Your task to perform on an android device: Add asus zenbook to the cart on target Image 0: 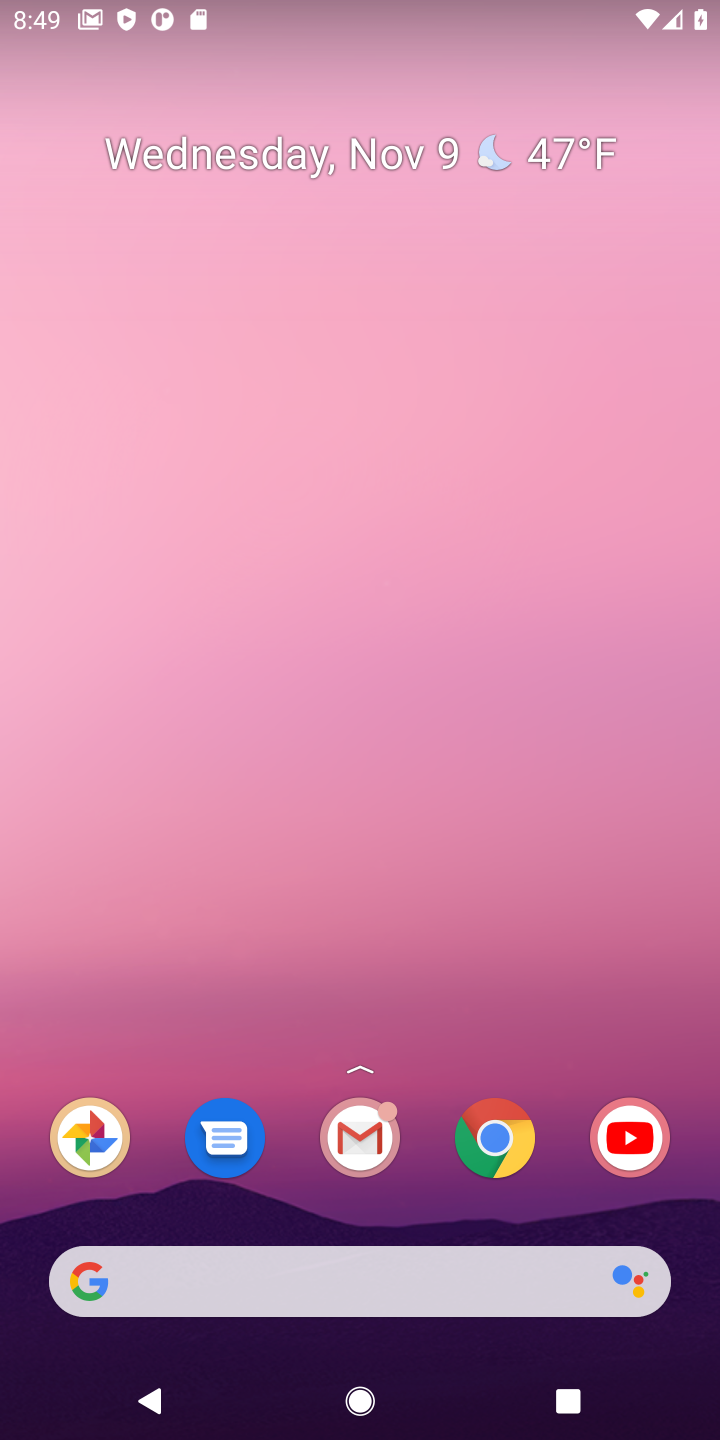
Step 0: drag from (466, 902) to (397, 132)
Your task to perform on an android device: Add asus zenbook to the cart on target Image 1: 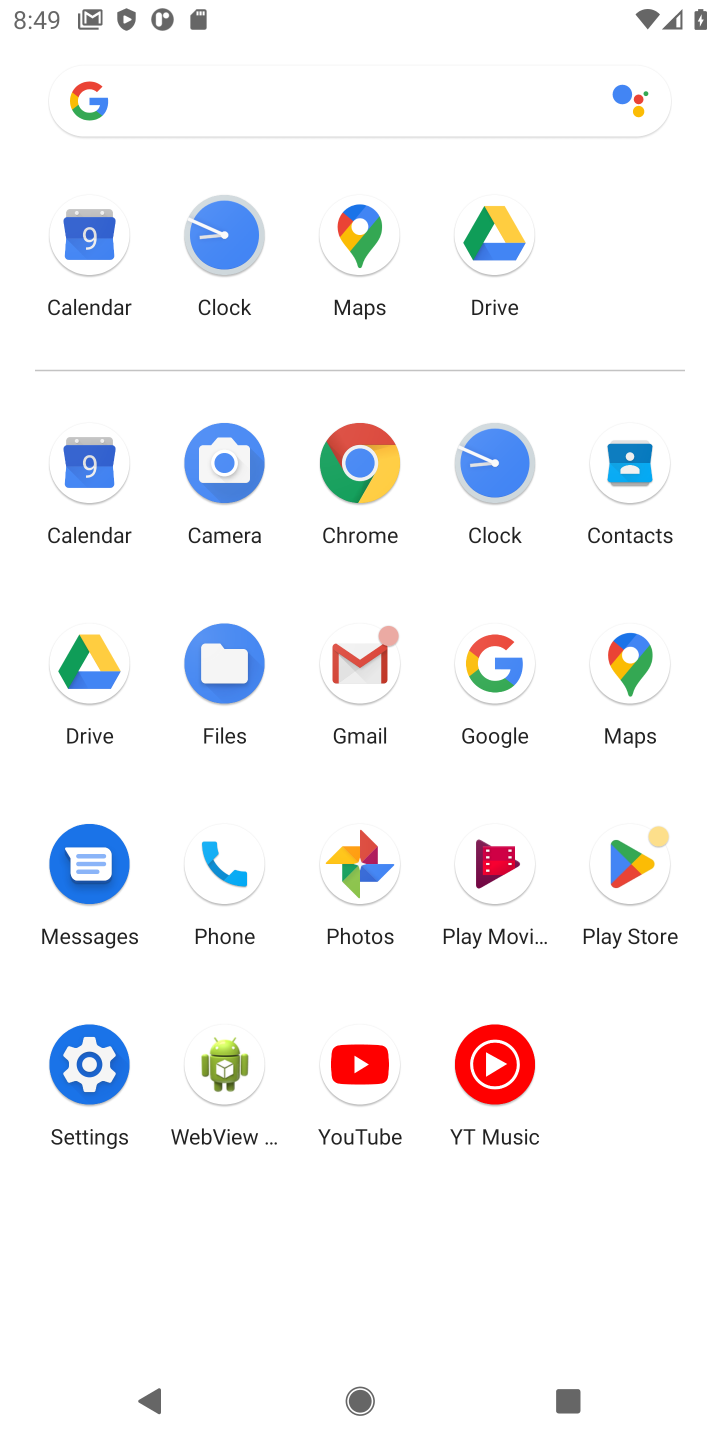
Step 1: click (362, 452)
Your task to perform on an android device: Add asus zenbook to the cart on target Image 2: 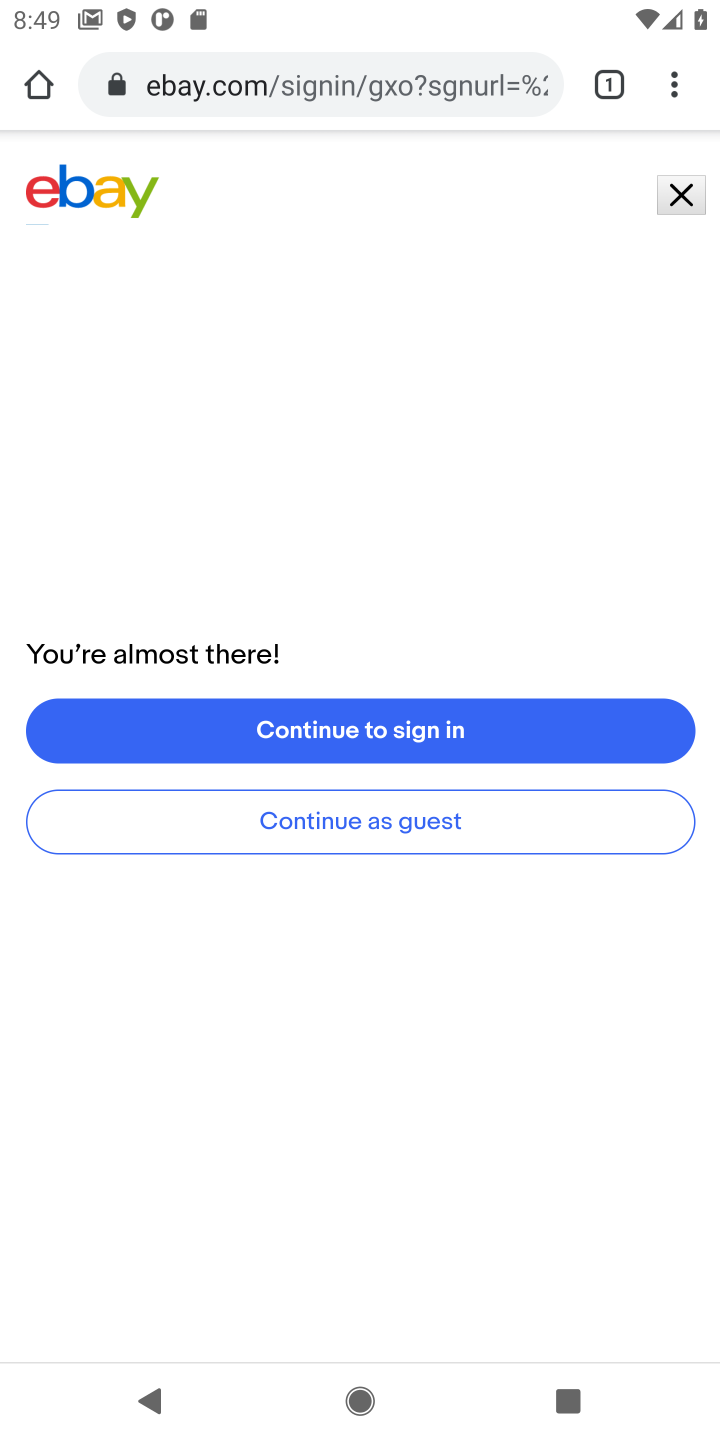
Step 2: click (362, 89)
Your task to perform on an android device: Add asus zenbook to the cart on target Image 3: 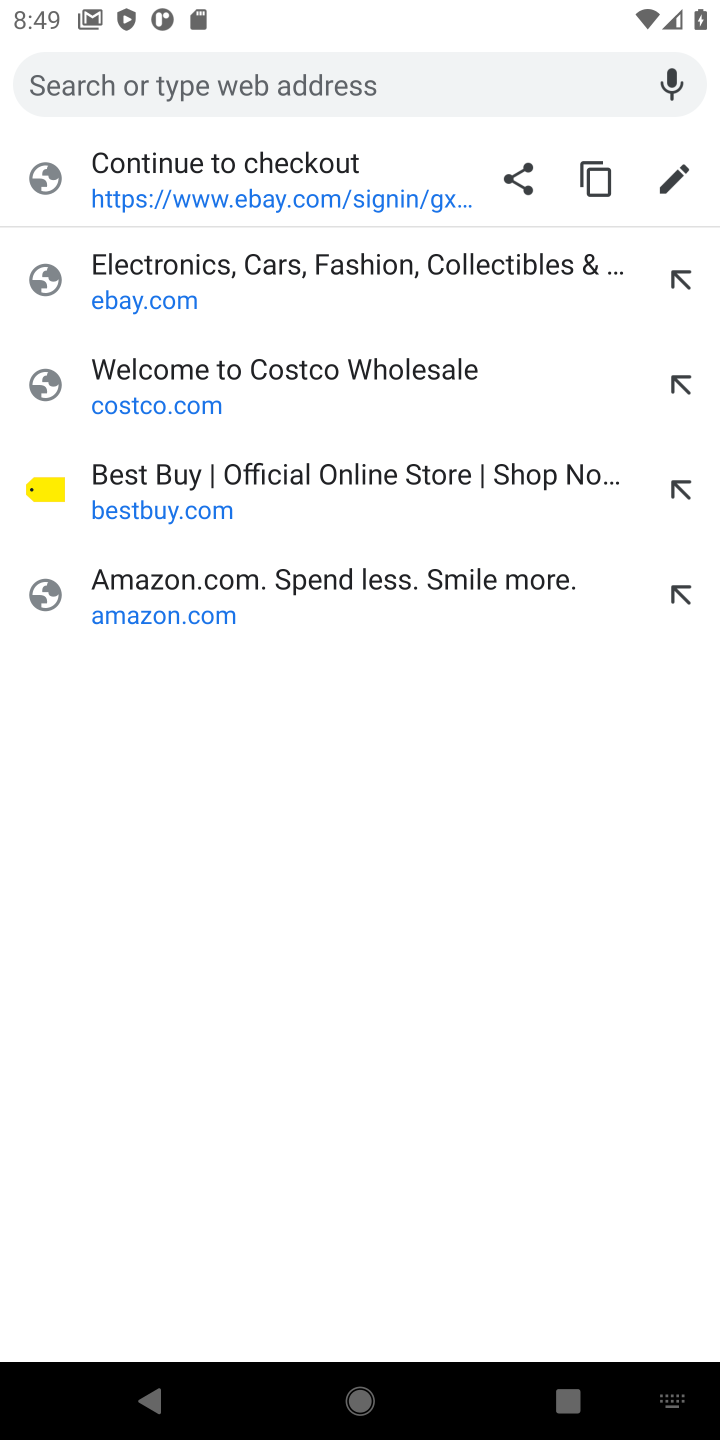
Step 3: type "target.com"
Your task to perform on an android device: Add asus zenbook to the cart on target Image 4: 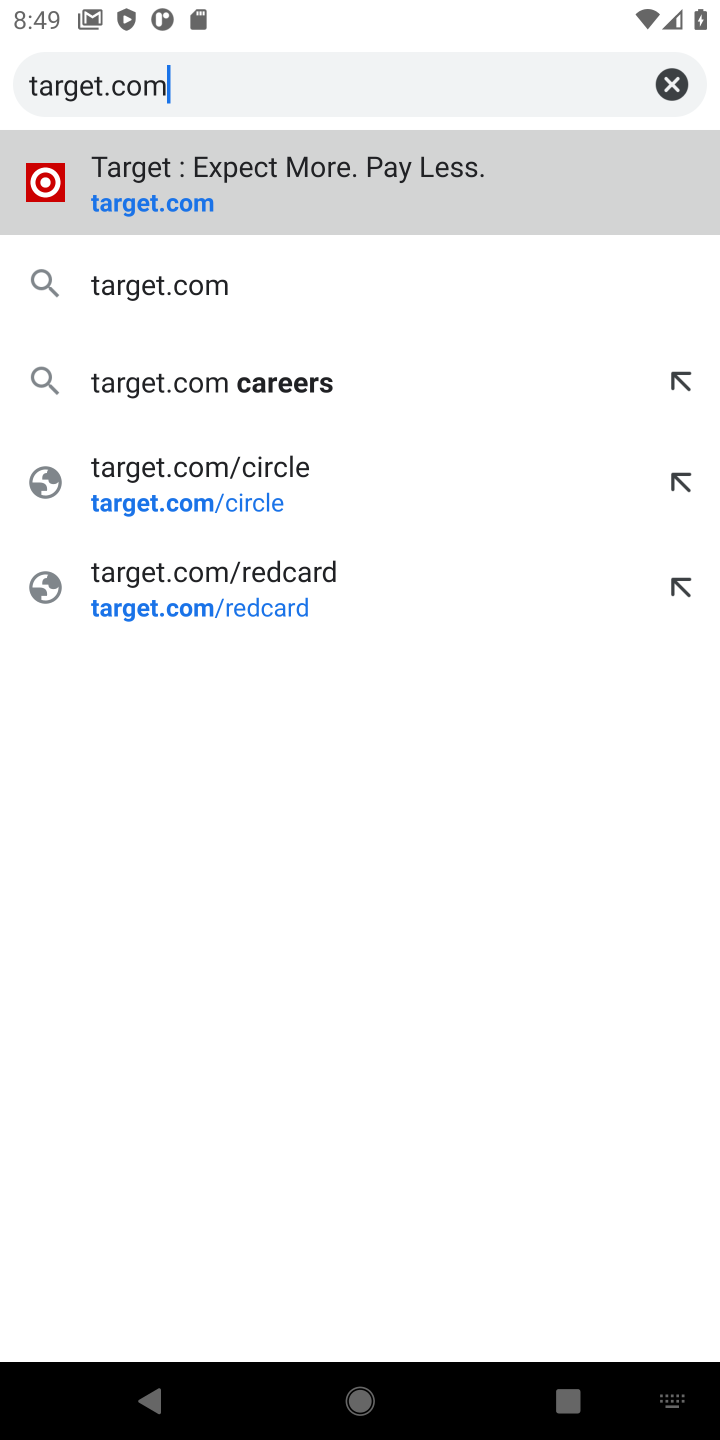
Step 4: press enter
Your task to perform on an android device: Add asus zenbook to the cart on target Image 5: 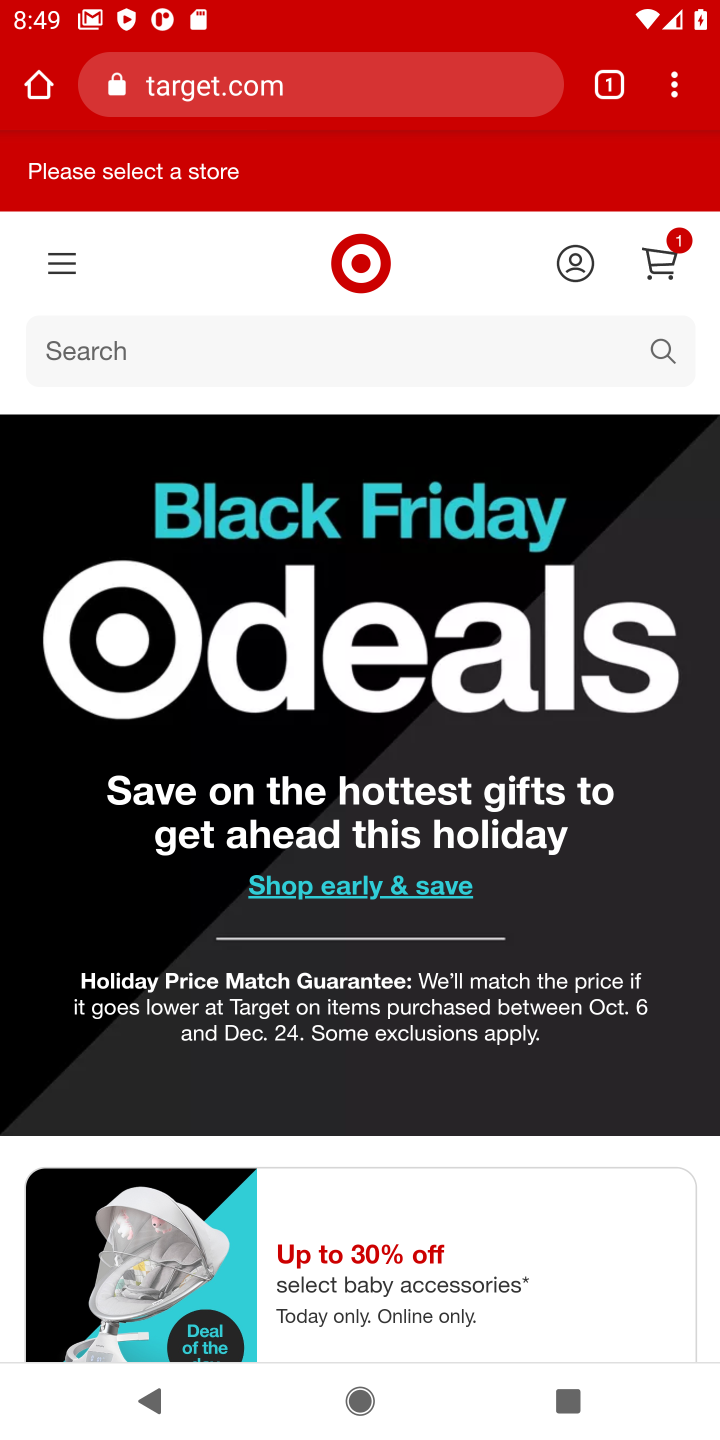
Step 5: click (156, 336)
Your task to perform on an android device: Add asus zenbook to the cart on target Image 6: 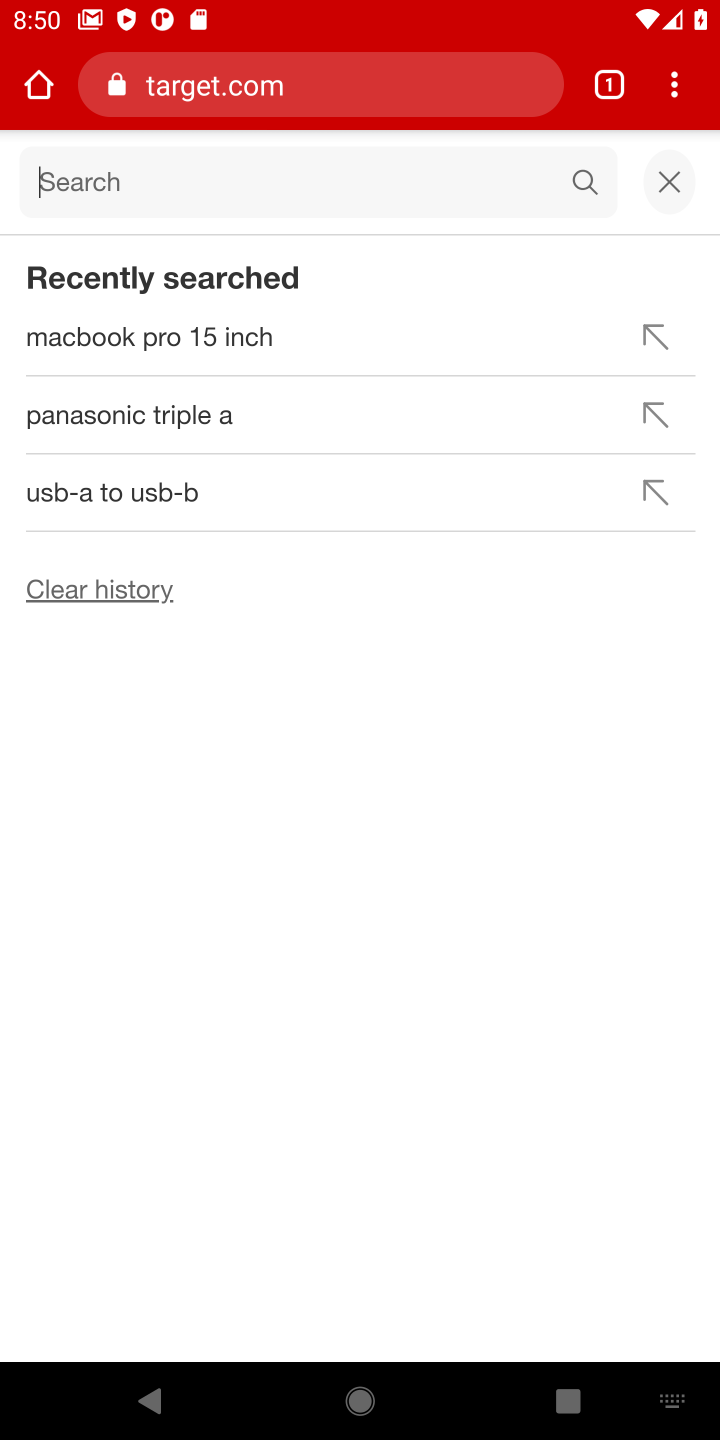
Step 6: type "asus zenbook"
Your task to perform on an android device: Add asus zenbook to the cart on target Image 7: 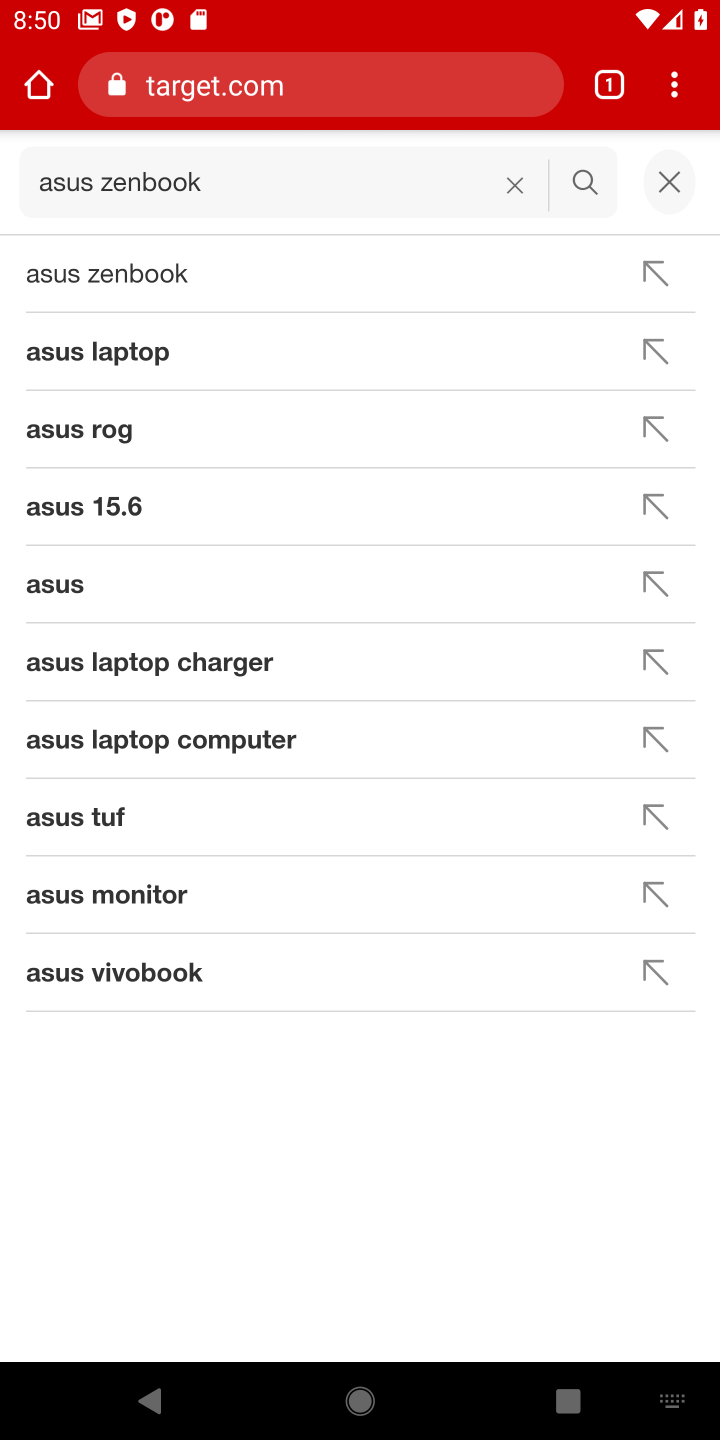
Step 7: press enter
Your task to perform on an android device: Add asus zenbook to the cart on target Image 8: 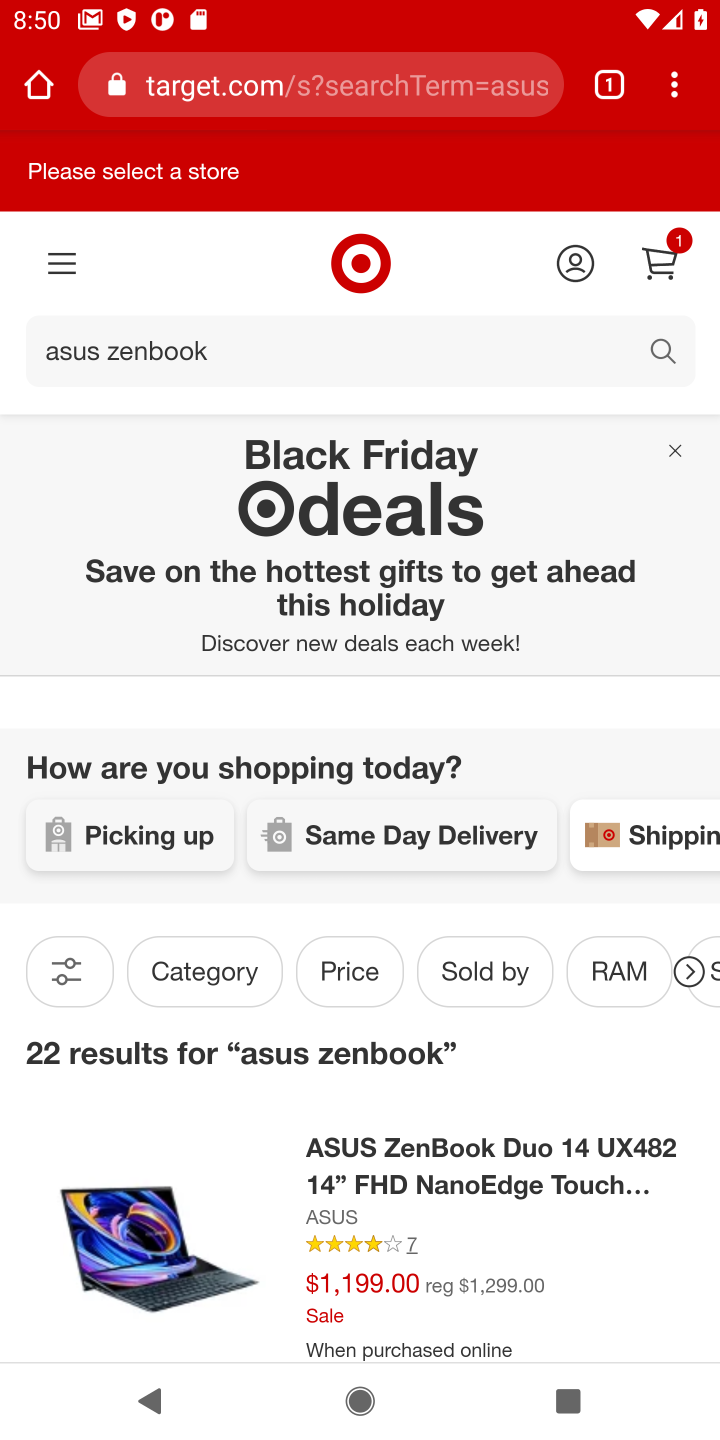
Step 8: drag from (504, 1215) to (434, 276)
Your task to perform on an android device: Add asus zenbook to the cart on target Image 9: 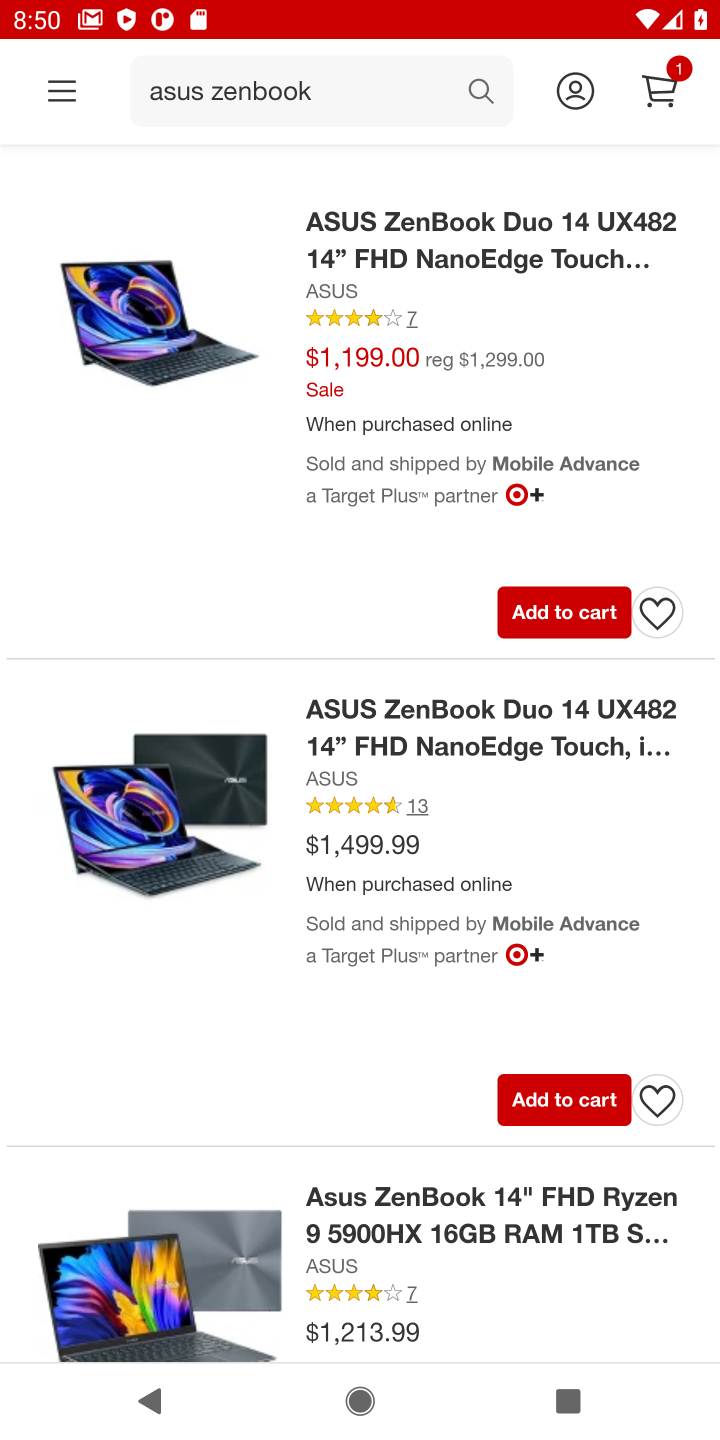
Step 9: drag from (317, 551) to (311, 774)
Your task to perform on an android device: Add asus zenbook to the cart on target Image 10: 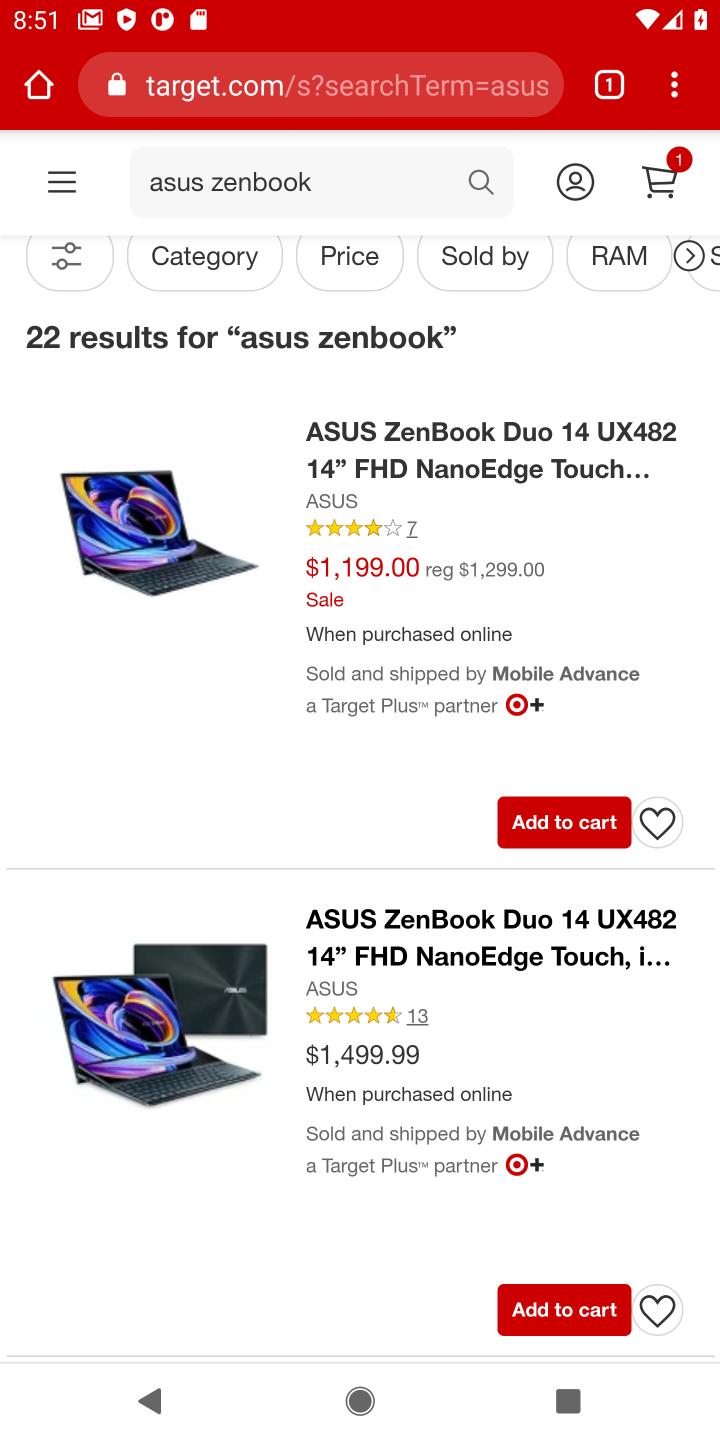
Step 10: click (569, 819)
Your task to perform on an android device: Add asus zenbook to the cart on target Image 11: 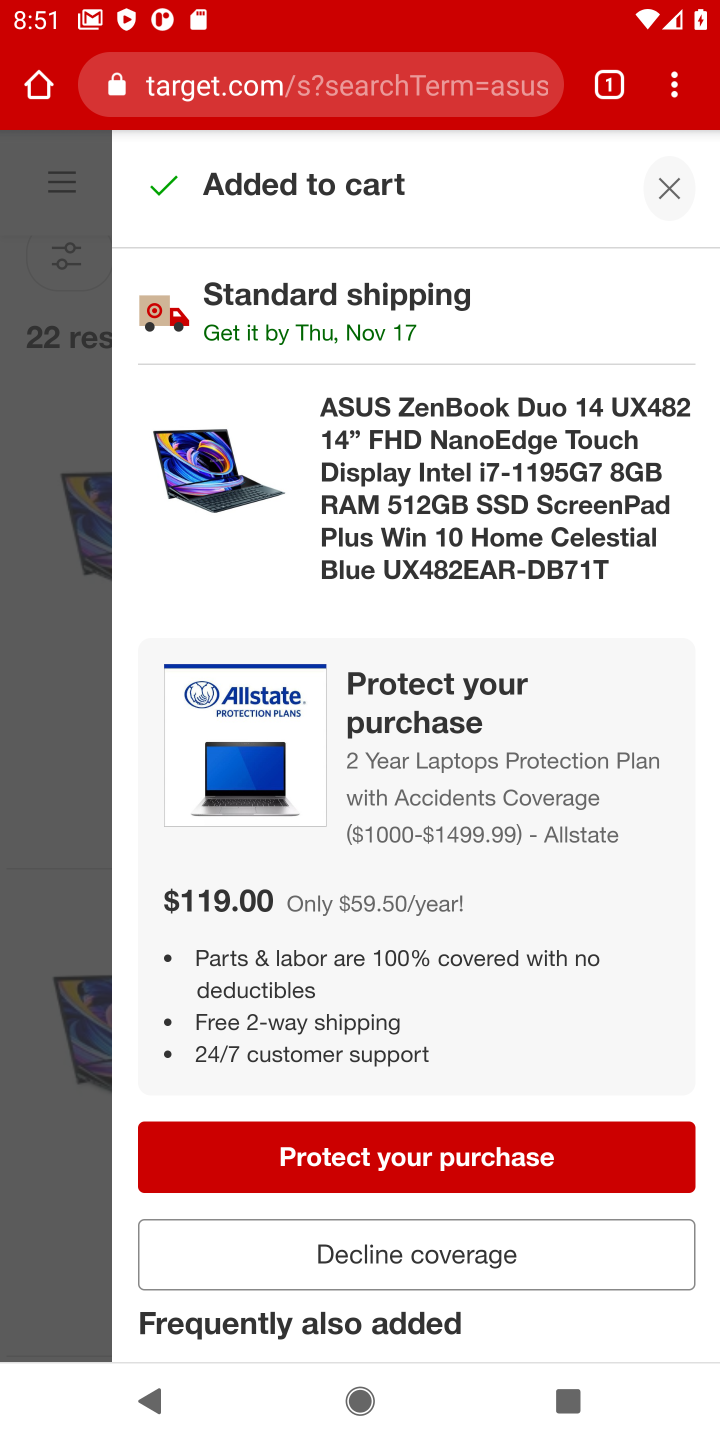
Step 11: task complete